Your task to perform on an android device: Open calendar and show me the fourth week of next month Image 0: 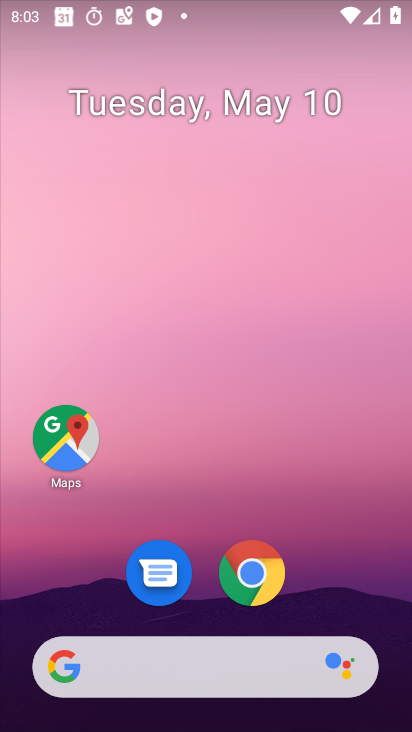
Step 0: drag from (387, 593) to (370, 235)
Your task to perform on an android device: Open calendar and show me the fourth week of next month Image 1: 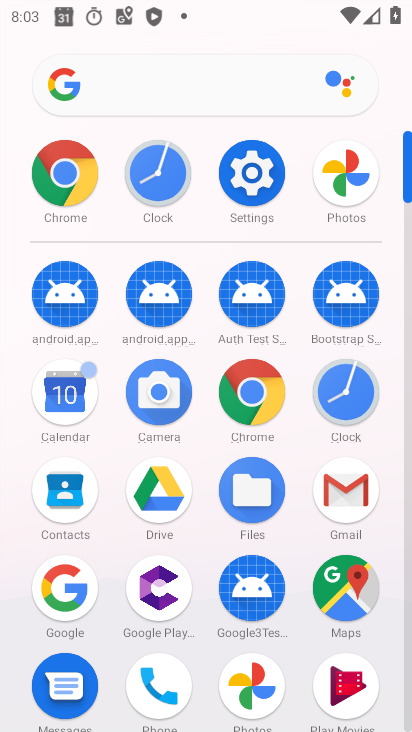
Step 1: click (71, 413)
Your task to perform on an android device: Open calendar and show me the fourth week of next month Image 2: 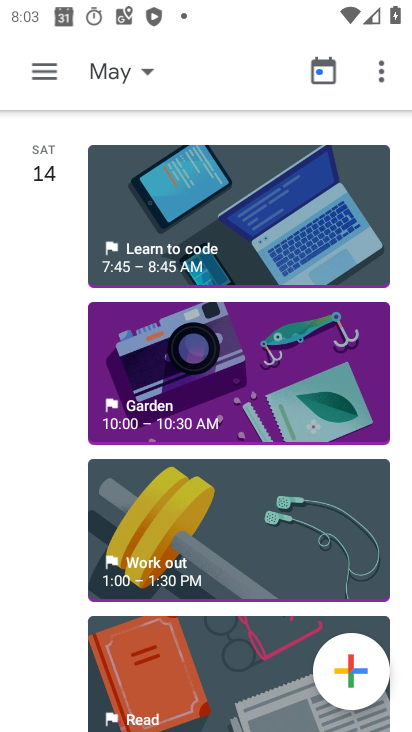
Step 2: click (100, 77)
Your task to perform on an android device: Open calendar and show me the fourth week of next month Image 3: 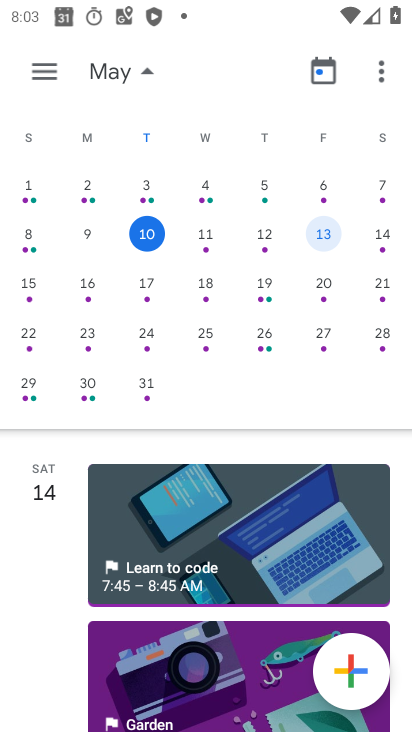
Step 3: click (26, 334)
Your task to perform on an android device: Open calendar and show me the fourth week of next month Image 4: 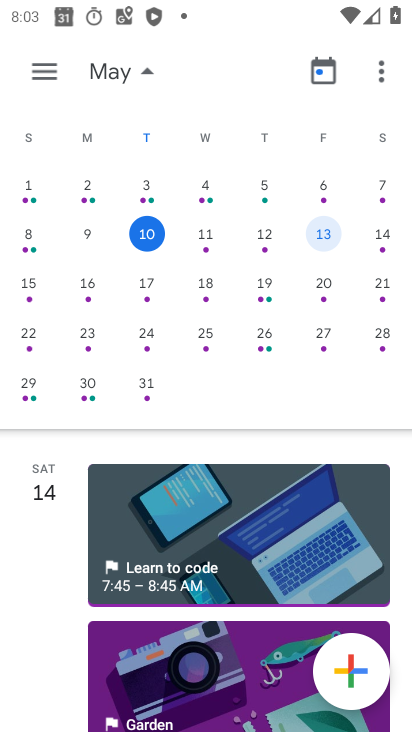
Step 4: click (30, 338)
Your task to perform on an android device: Open calendar and show me the fourth week of next month Image 5: 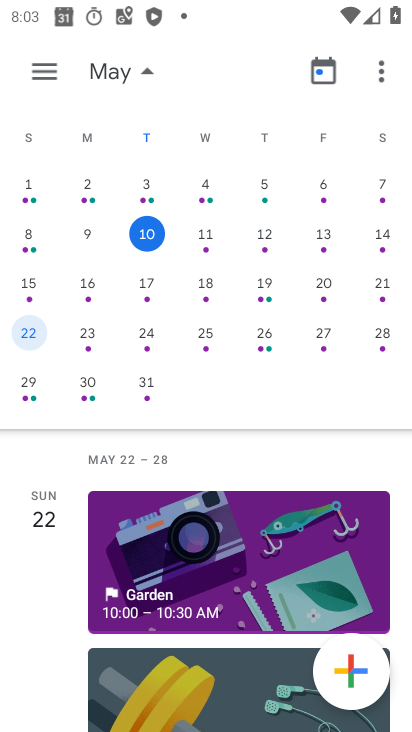
Step 5: task complete